Your task to perform on an android device: empty trash in the gmail app Image 0: 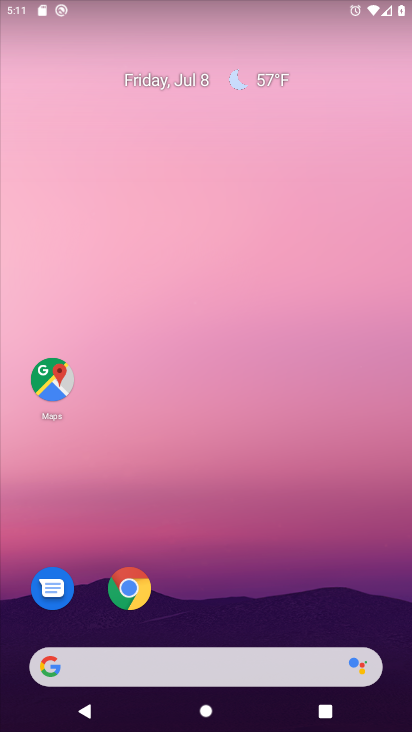
Step 0: drag from (236, 711) to (210, 142)
Your task to perform on an android device: empty trash in the gmail app Image 1: 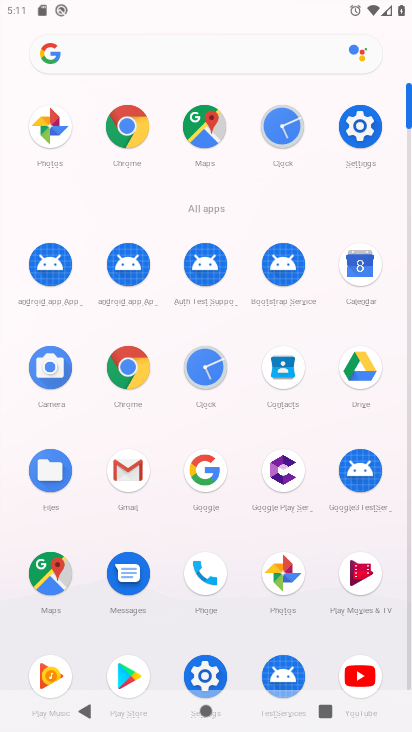
Step 1: click (128, 467)
Your task to perform on an android device: empty trash in the gmail app Image 2: 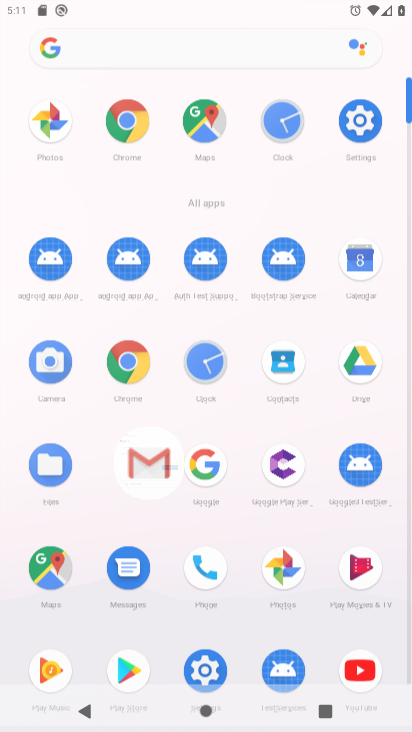
Step 2: click (128, 467)
Your task to perform on an android device: empty trash in the gmail app Image 3: 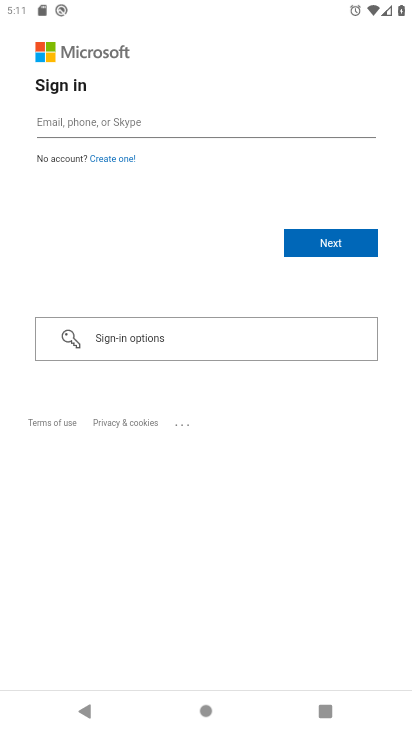
Step 3: press back button
Your task to perform on an android device: empty trash in the gmail app Image 4: 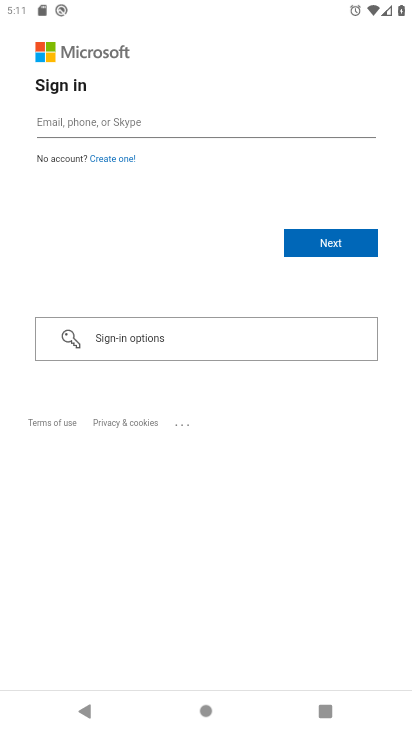
Step 4: press back button
Your task to perform on an android device: empty trash in the gmail app Image 5: 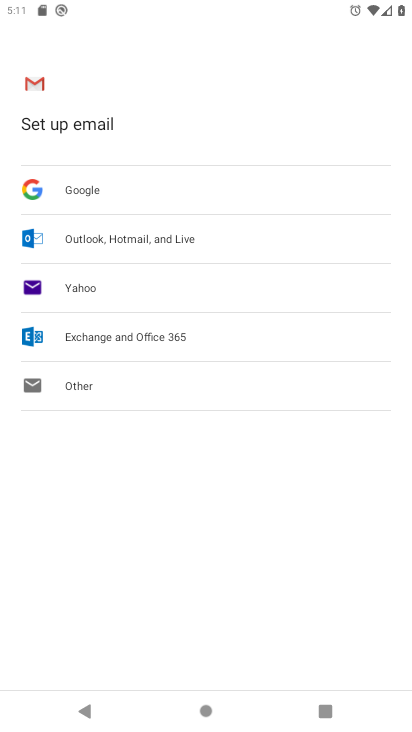
Step 5: press back button
Your task to perform on an android device: empty trash in the gmail app Image 6: 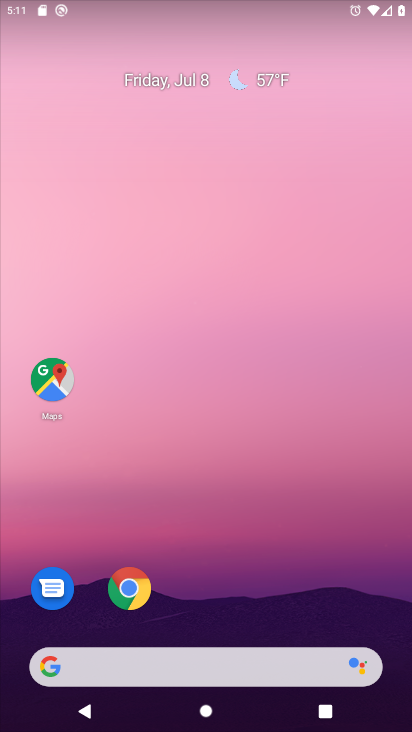
Step 6: drag from (291, 697) to (223, 73)
Your task to perform on an android device: empty trash in the gmail app Image 7: 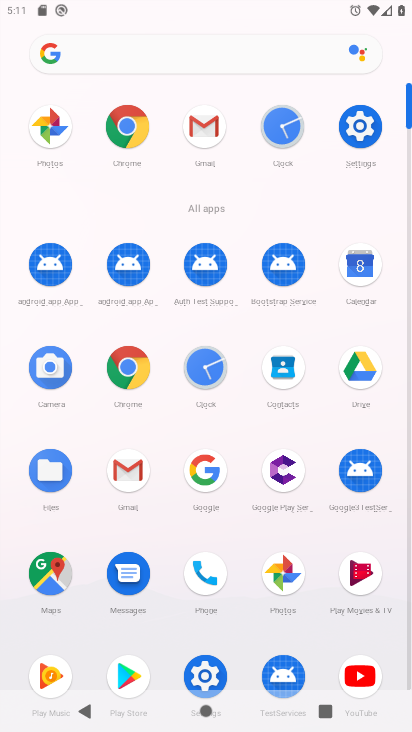
Step 7: click (209, 131)
Your task to perform on an android device: empty trash in the gmail app Image 8: 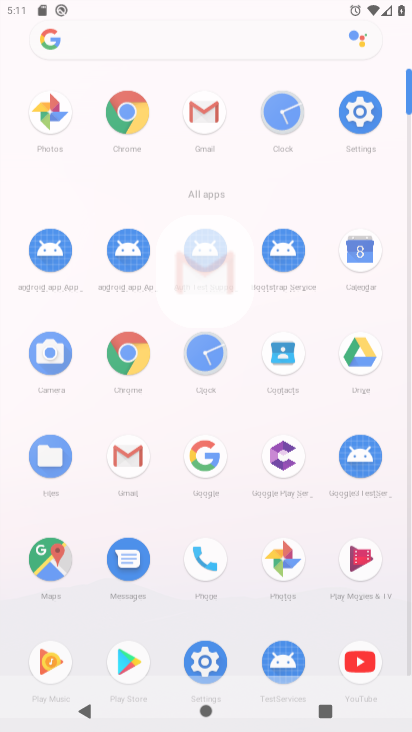
Step 8: click (209, 131)
Your task to perform on an android device: empty trash in the gmail app Image 9: 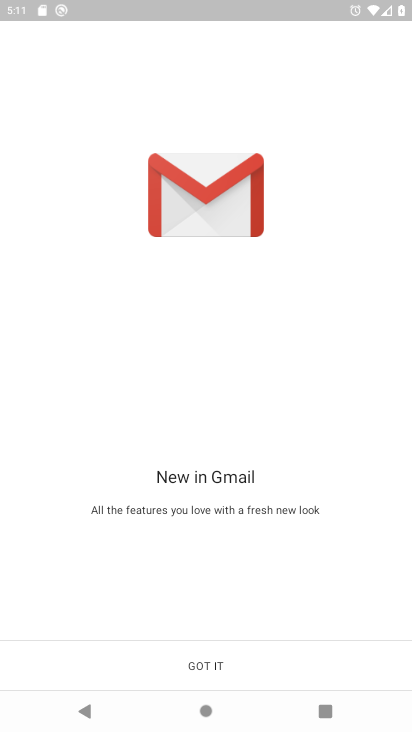
Step 9: click (210, 657)
Your task to perform on an android device: empty trash in the gmail app Image 10: 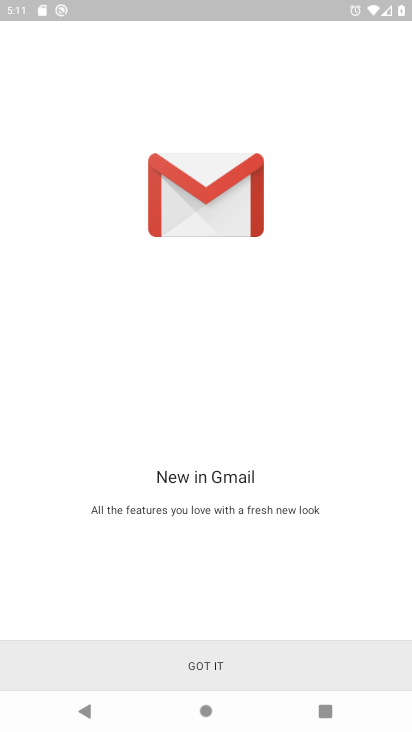
Step 10: click (210, 664)
Your task to perform on an android device: empty trash in the gmail app Image 11: 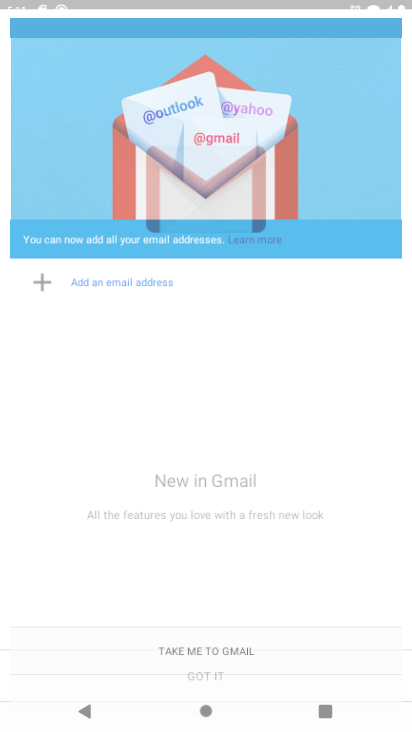
Step 11: click (210, 664)
Your task to perform on an android device: empty trash in the gmail app Image 12: 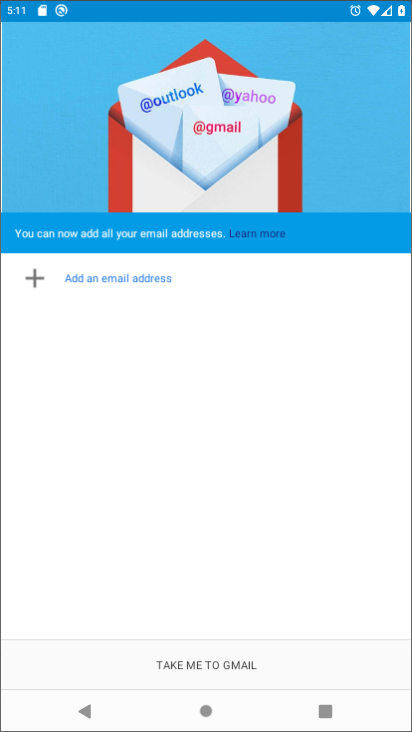
Step 12: click (210, 664)
Your task to perform on an android device: empty trash in the gmail app Image 13: 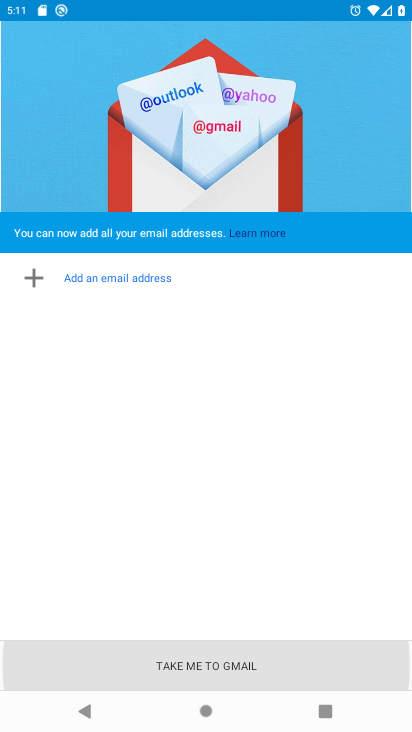
Step 13: click (210, 667)
Your task to perform on an android device: empty trash in the gmail app Image 14: 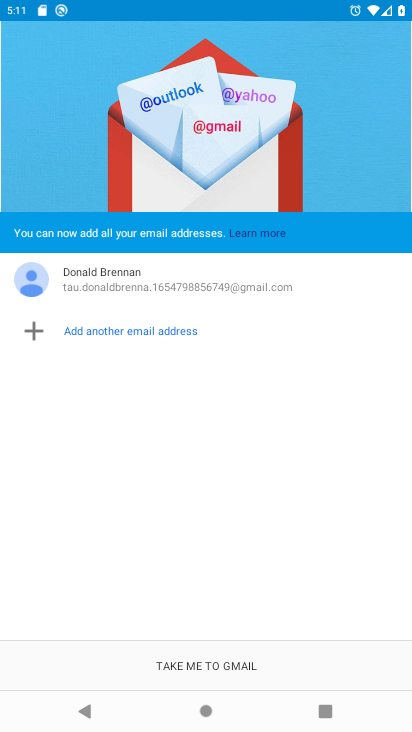
Step 14: click (262, 652)
Your task to perform on an android device: empty trash in the gmail app Image 15: 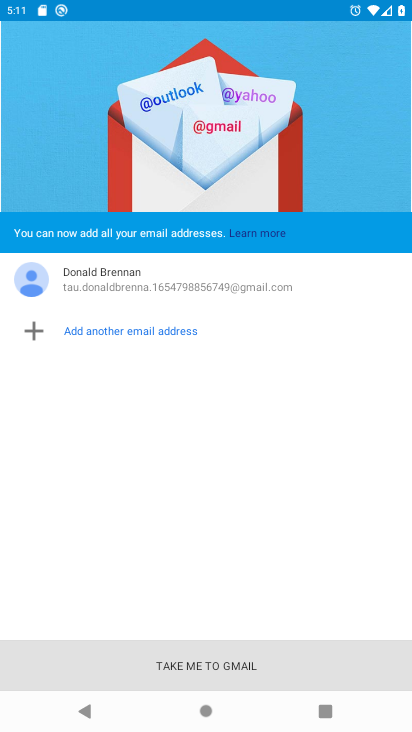
Step 15: click (263, 662)
Your task to perform on an android device: empty trash in the gmail app Image 16: 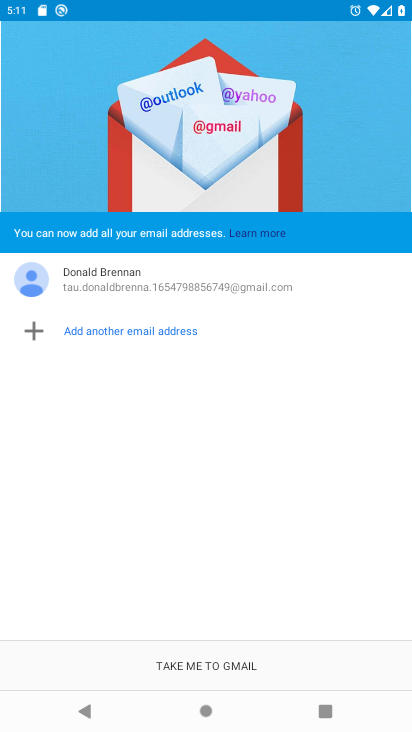
Step 16: click (263, 667)
Your task to perform on an android device: empty trash in the gmail app Image 17: 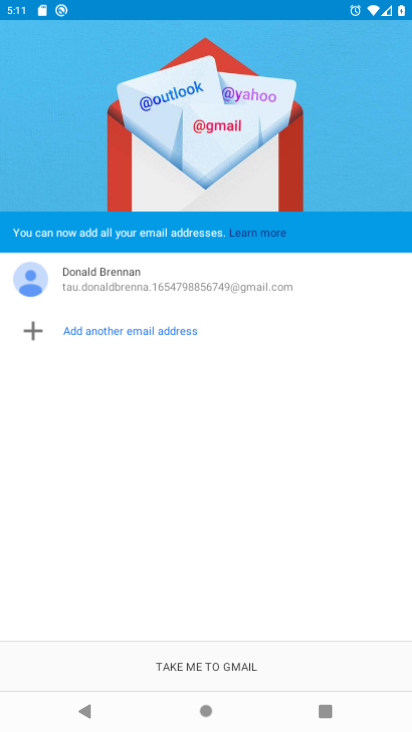
Step 17: click (266, 666)
Your task to perform on an android device: empty trash in the gmail app Image 18: 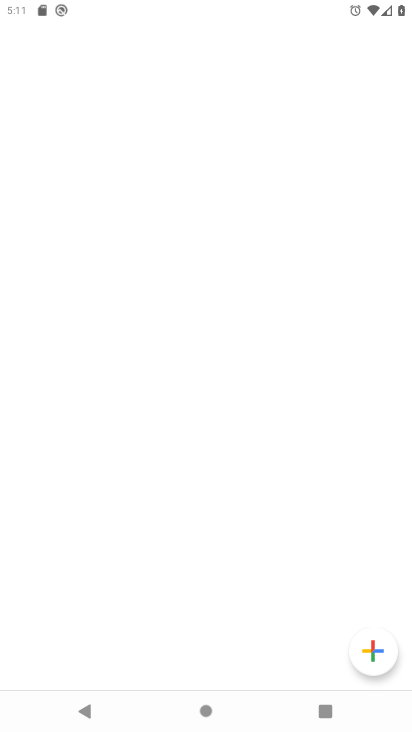
Step 18: click (264, 658)
Your task to perform on an android device: empty trash in the gmail app Image 19: 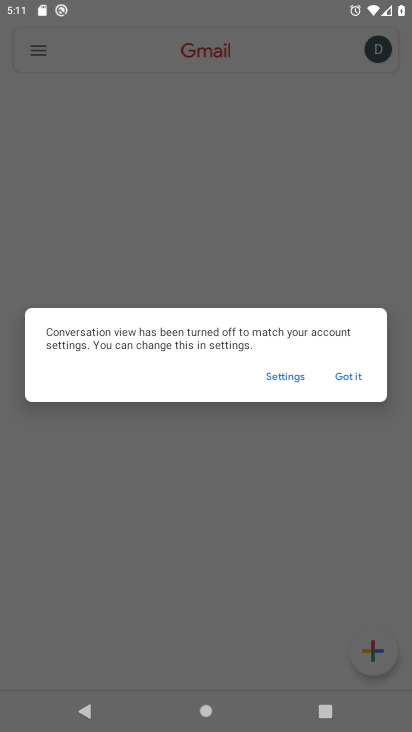
Step 19: click (263, 666)
Your task to perform on an android device: empty trash in the gmail app Image 20: 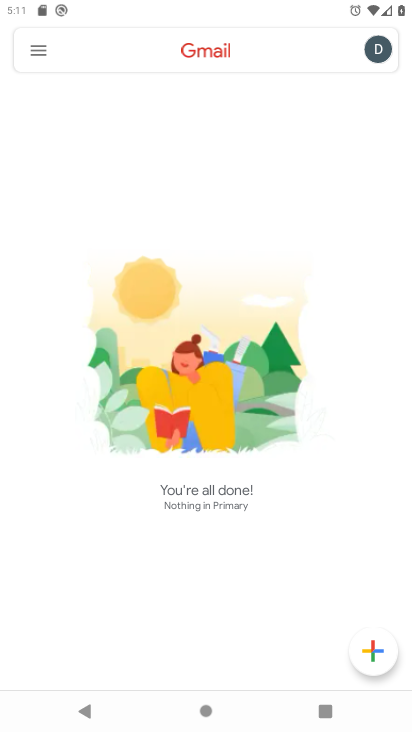
Step 20: click (32, 53)
Your task to perform on an android device: empty trash in the gmail app Image 21: 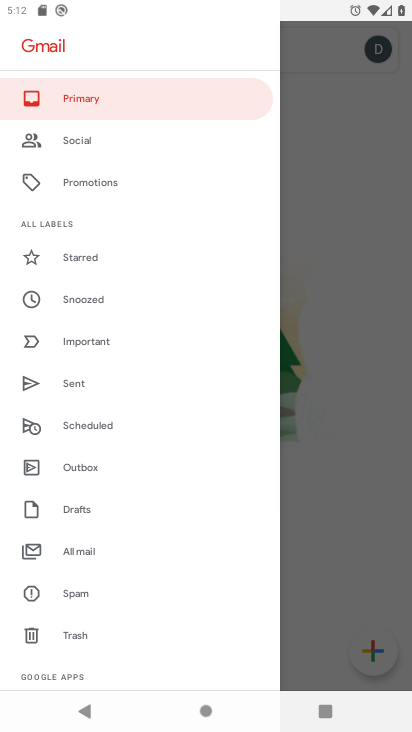
Step 21: drag from (83, 554) to (99, 148)
Your task to perform on an android device: empty trash in the gmail app Image 22: 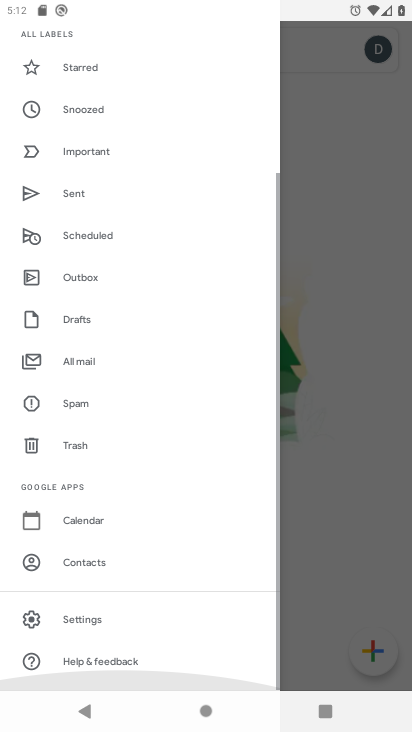
Step 22: drag from (114, 516) to (118, 180)
Your task to perform on an android device: empty trash in the gmail app Image 23: 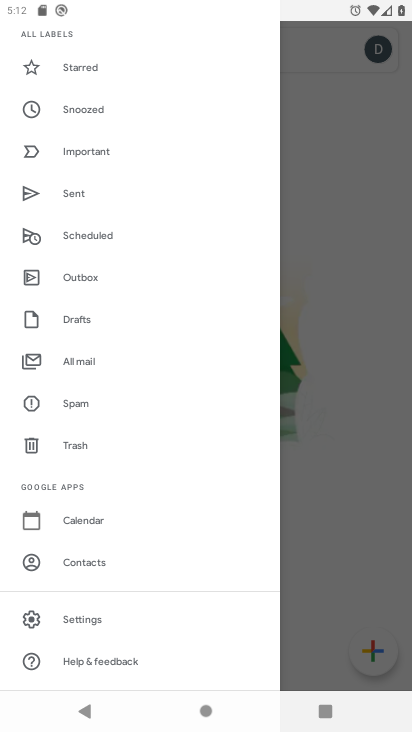
Step 23: click (63, 447)
Your task to perform on an android device: empty trash in the gmail app Image 24: 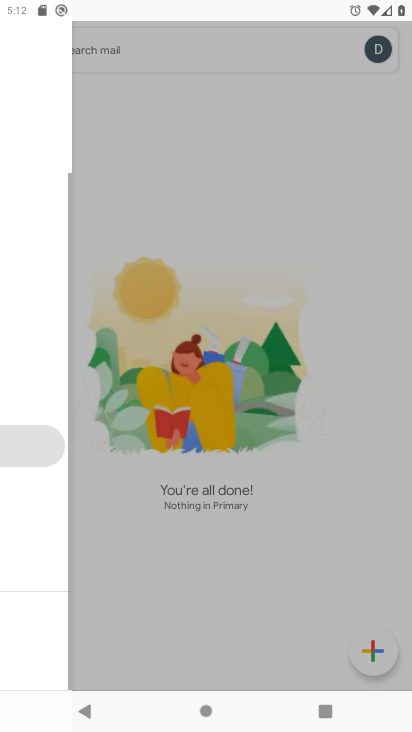
Step 24: click (67, 447)
Your task to perform on an android device: empty trash in the gmail app Image 25: 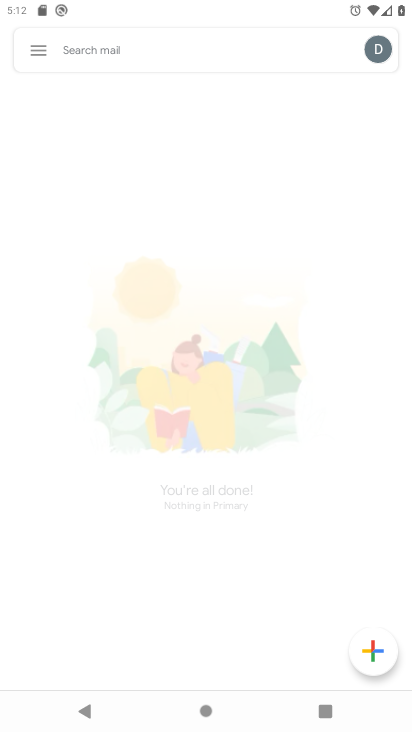
Step 25: click (70, 447)
Your task to perform on an android device: empty trash in the gmail app Image 26: 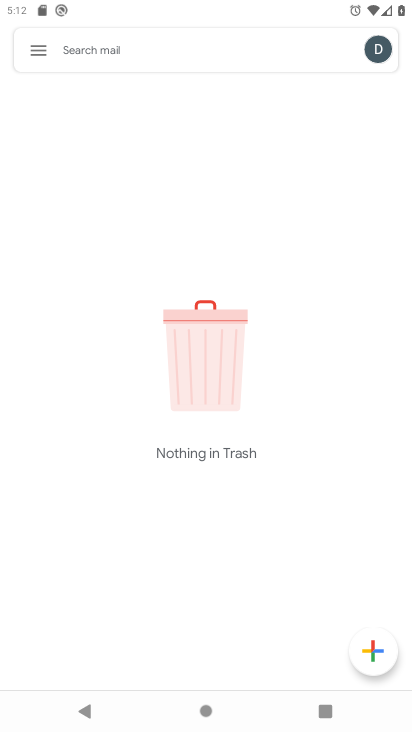
Step 26: click (72, 446)
Your task to perform on an android device: empty trash in the gmail app Image 27: 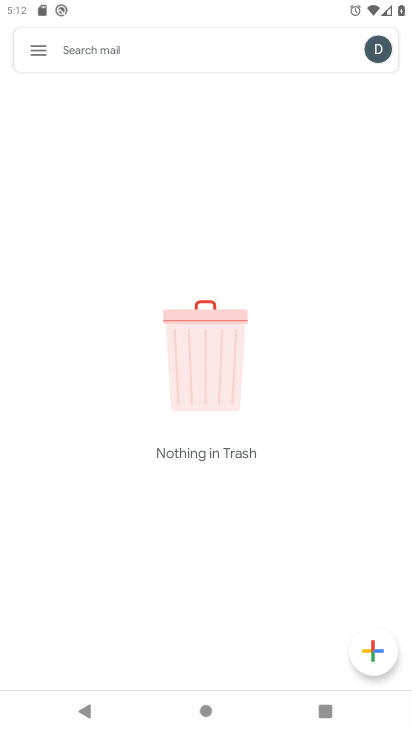
Step 27: task complete